Your task to perform on an android device: see tabs open on other devices in the chrome app Image 0: 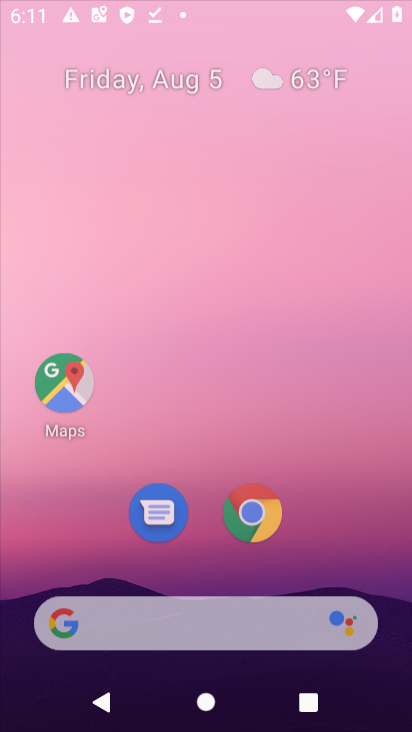
Step 0: click (185, 104)
Your task to perform on an android device: see tabs open on other devices in the chrome app Image 1: 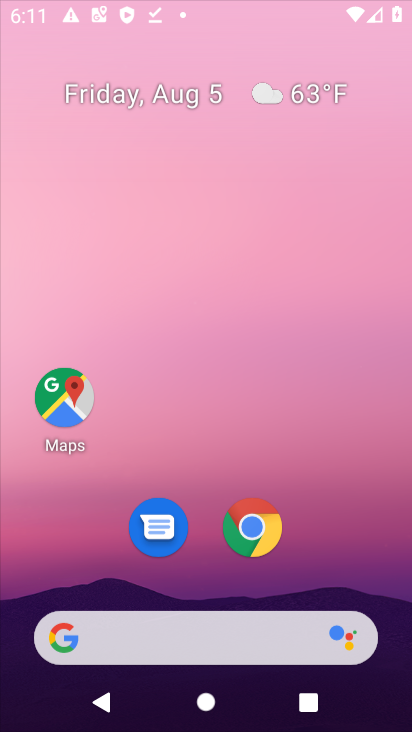
Step 1: drag from (183, 562) to (174, 88)
Your task to perform on an android device: see tabs open on other devices in the chrome app Image 2: 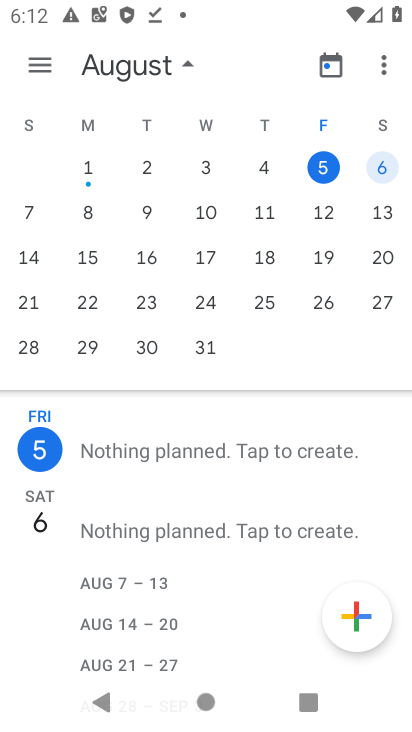
Step 2: press home button
Your task to perform on an android device: see tabs open on other devices in the chrome app Image 3: 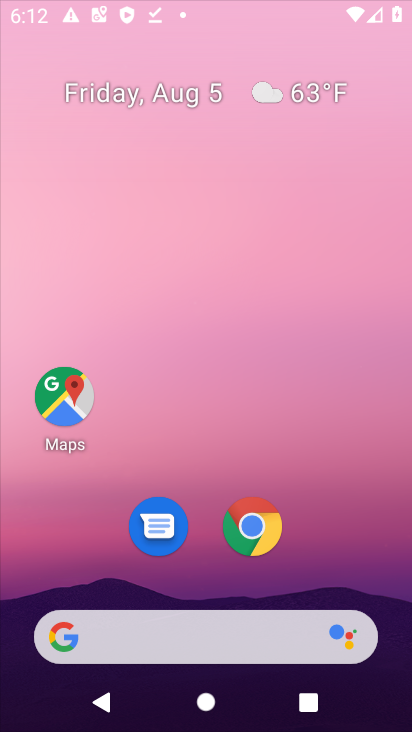
Step 3: drag from (202, 556) to (228, 64)
Your task to perform on an android device: see tabs open on other devices in the chrome app Image 4: 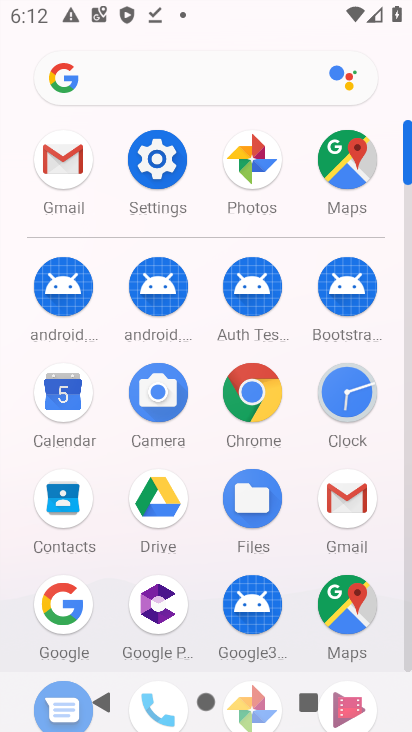
Step 4: click (245, 386)
Your task to perform on an android device: see tabs open on other devices in the chrome app Image 5: 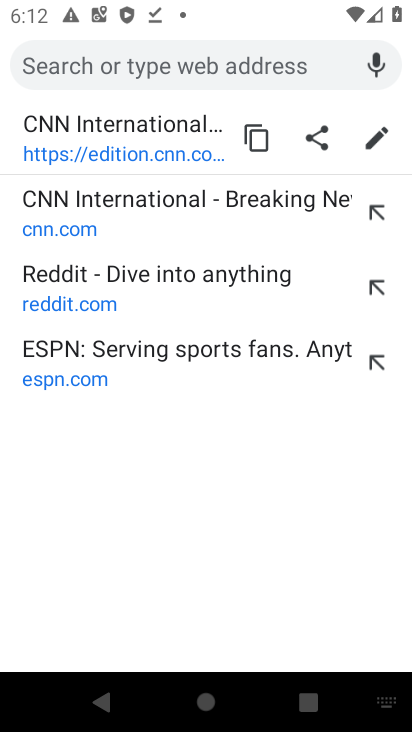
Step 5: press back button
Your task to perform on an android device: see tabs open on other devices in the chrome app Image 6: 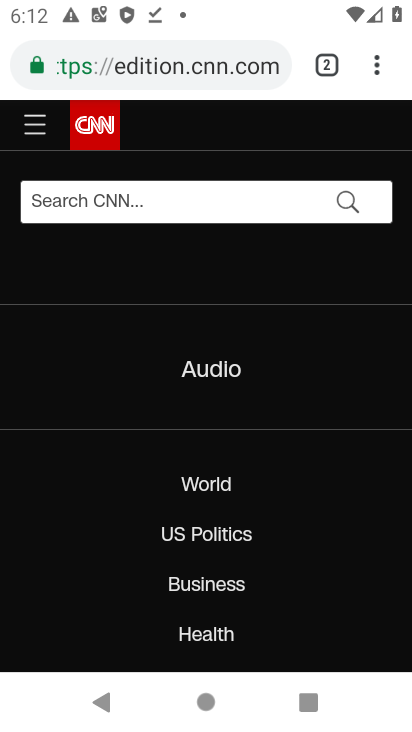
Step 6: drag from (379, 62) to (166, 581)
Your task to perform on an android device: see tabs open on other devices in the chrome app Image 7: 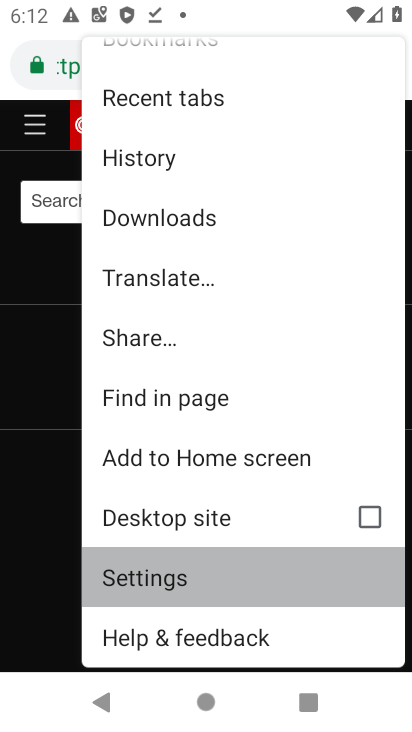
Step 7: click (164, 579)
Your task to perform on an android device: see tabs open on other devices in the chrome app Image 8: 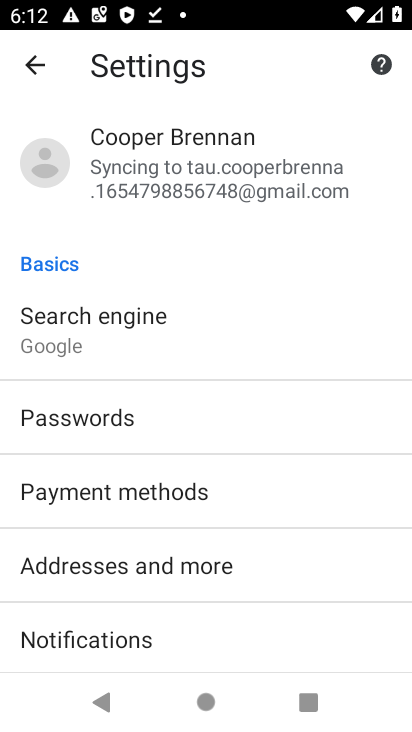
Step 8: click (11, 61)
Your task to perform on an android device: see tabs open on other devices in the chrome app Image 9: 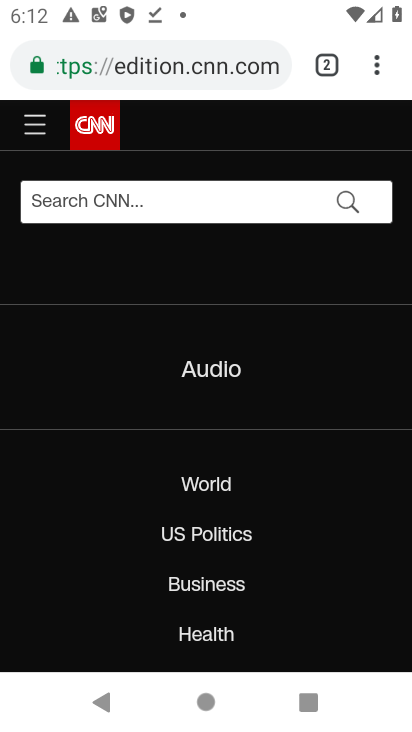
Step 9: task complete